Your task to perform on an android device: Turn off the flashlight Image 0: 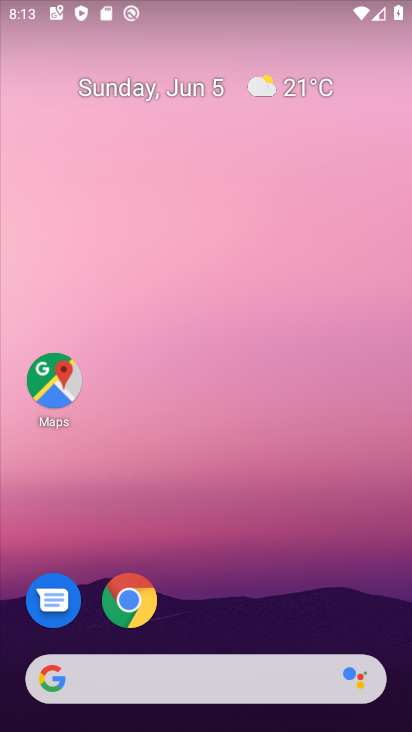
Step 0: drag from (194, 69) to (174, 540)
Your task to perform on an android device: Turn off the flashlight Image 1: 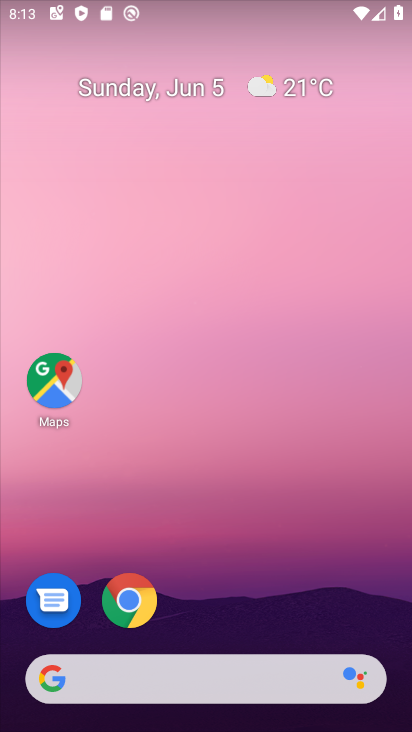
Step 1: drag from (203, 10) to (188, 472)
Your task to perform on an android device: Turn off the flashlight Image 2: 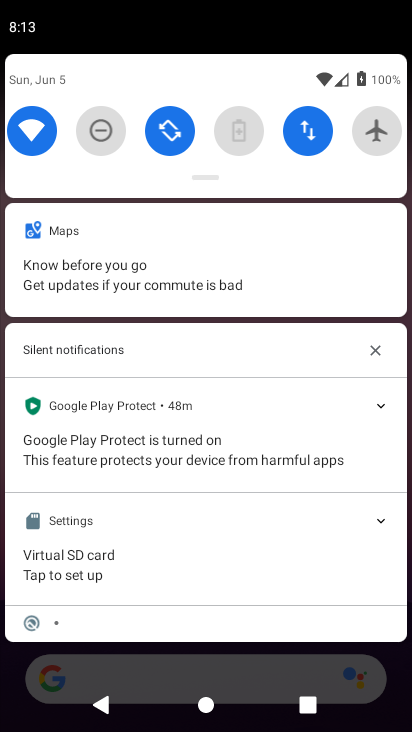
Step 2: drag from (175, 188) to (170, 580)
Your task to perform on an android device: Turn off the flashlight Image 3: 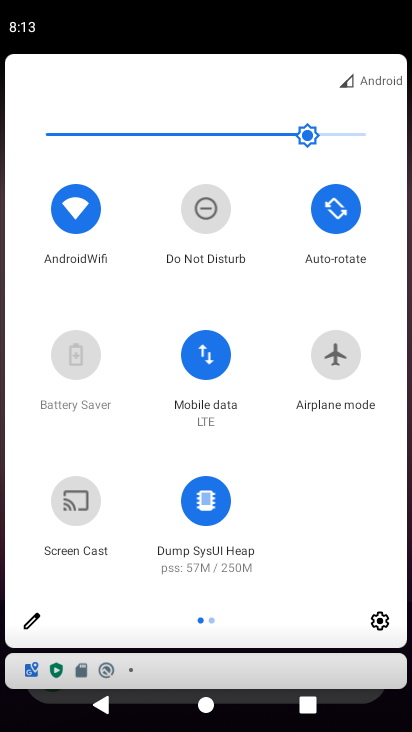
Step 3: click (33, 623)
Your task to perform on an android device: Turn off the flashlight Image 4: 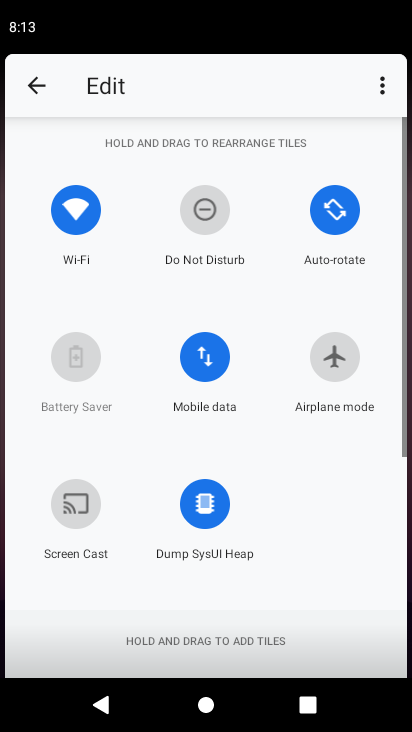
Step 4: task complete